Your task to perform on an android device: see tabs open on other devices in the chrome app Image 0: 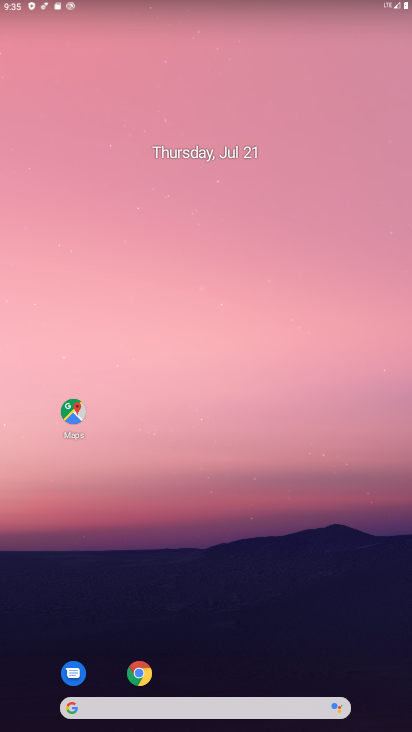
Step 0: drag from (224, 698) to (236, 367)
Your task to perform on an android device: see tabs open on other devices in the chrome app Image 1: 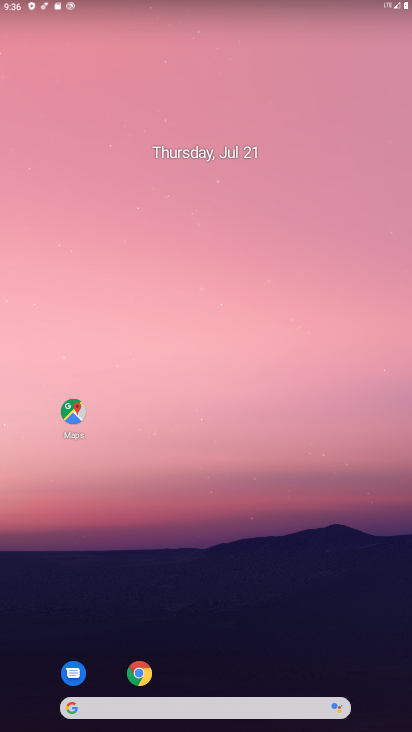
Step 1: click (137, 672)
Your task to perform on an android device: see tabs open on other devices in the chrome app Image 2: 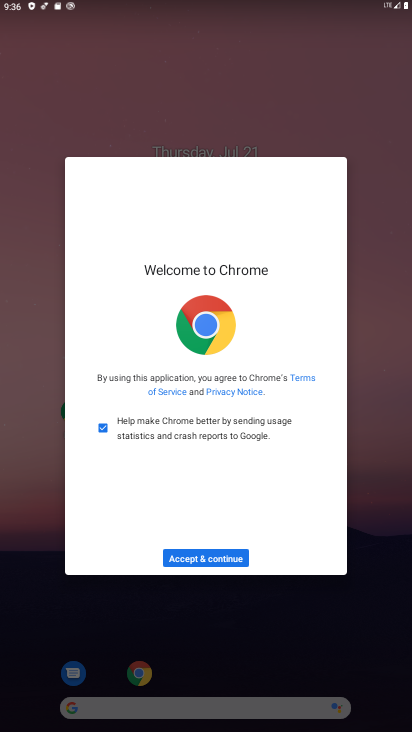
Step 2: click (220, 550)
Your task to perform on an android device: see tabs open on other devices in the chrome app Image 3: 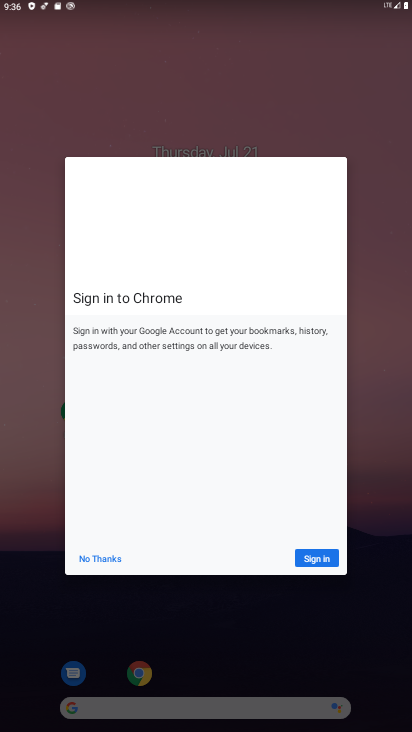
Step 3: click (106, 559)
Your task to perform on an android device: see tabs open on other devices in the chrome app Image 4: 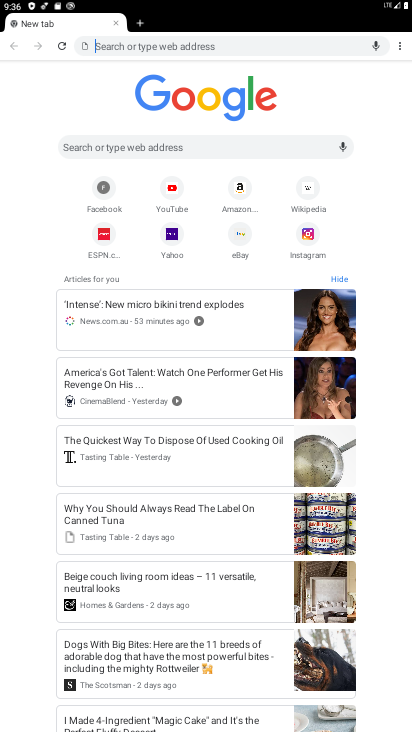
Step 4: click (399, 48)
Your task to perform on an android device: see tabs open on other devices in the chrome app Image 5: 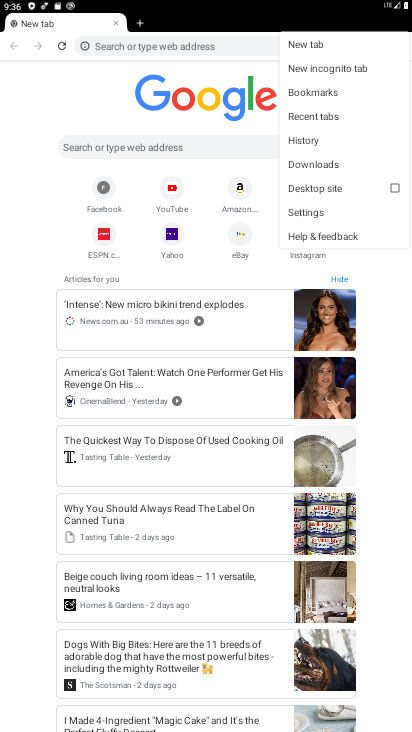
Step 5: click (311, 118)
Your task to perform on an android device: see tabs open on other devices in the chrome app Image 6: 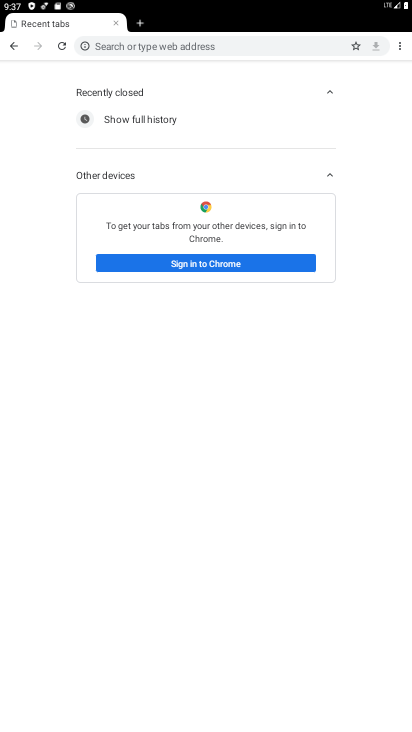
Step 6: task complete